Your task to perform on an android device: What's the weather? Image 0: 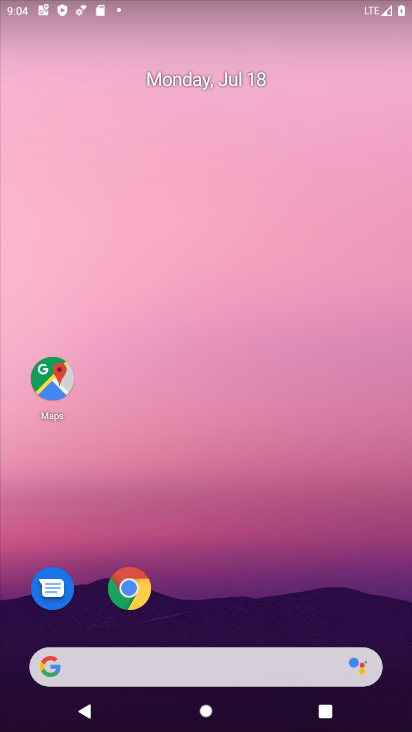
Step 0: click (265, 667)
Your task to perform on an android device: What's the weather? Image 1: 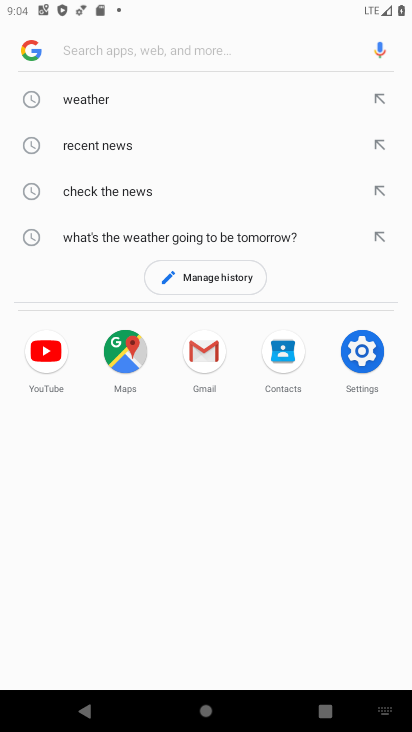
Step 1: type "what's the weather?"
Your task to perform on an android device: What's the weather? Image 2: 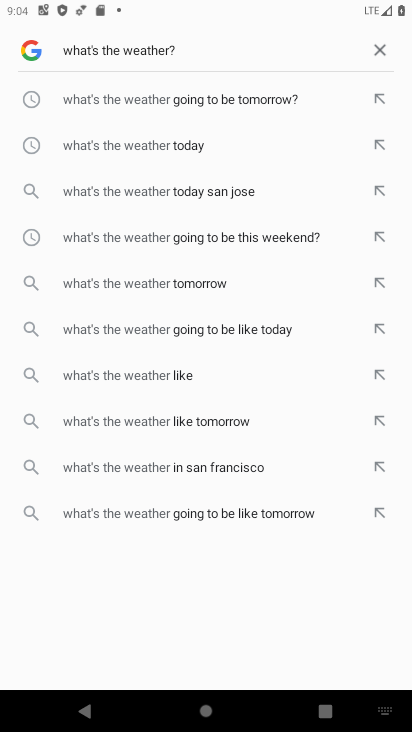
Step 2: click (138, 139)
Your task to perform on an android device: What's the weather? Image 3: 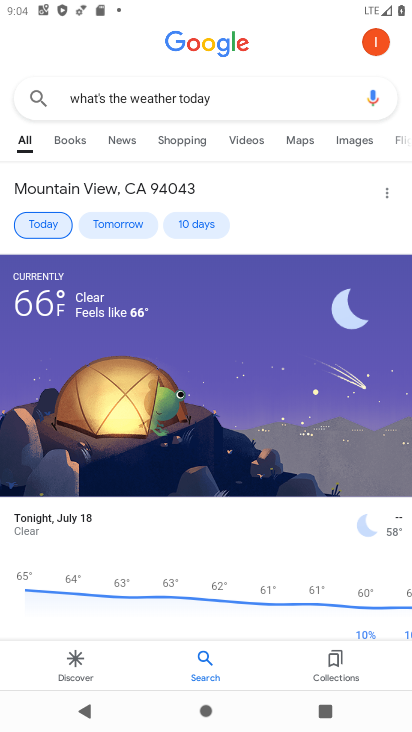
Step 3: task complete